Your task to perform on an android device: turn on translation in the chrome app Image 0: 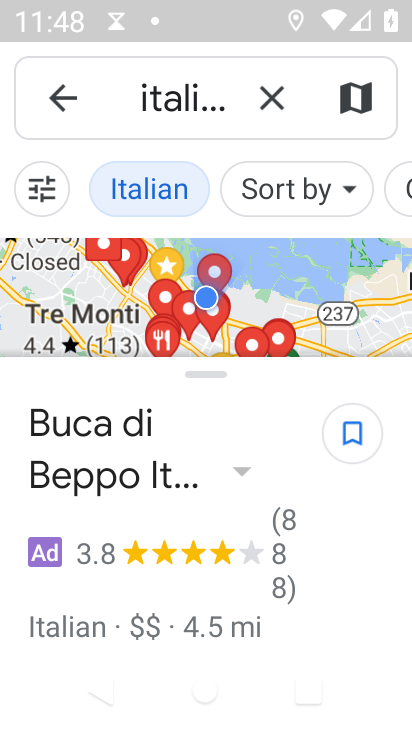
Step 0: press home button
Your task to perform on an android device: turn on translation in the chrome app Image 1: 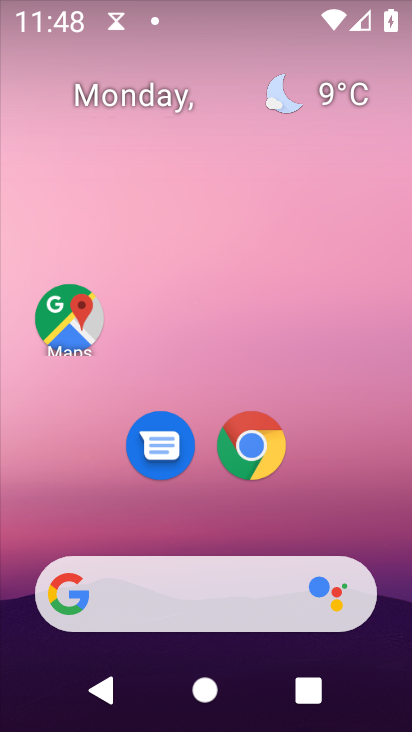
Step 1: drag from (229, 564) to (307, 1)
Your task to perform on an android device: turn on translation in the chrome app Image 2: 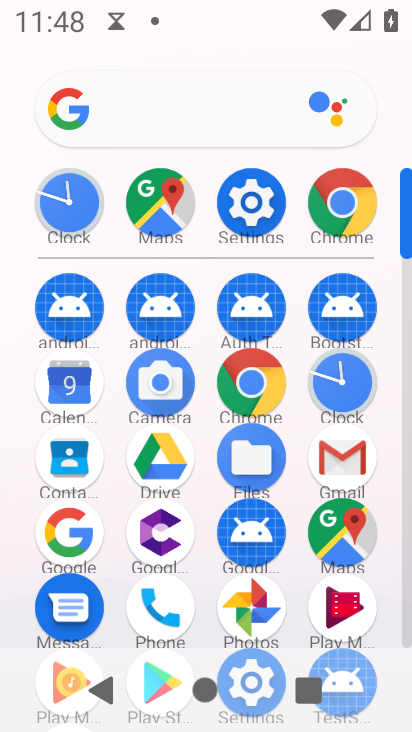
Step 2: click (258, 380)
Your task to perform on an android device: turn on translation in the chrome app Image 3: 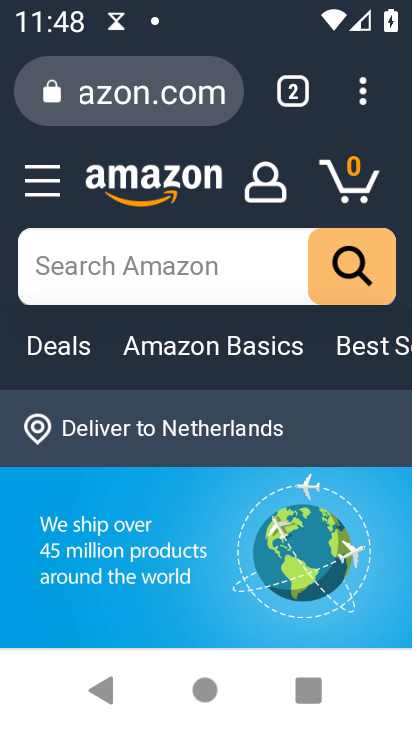
Step 3: drag from (363, 100) to (168, 487)
Your task to perform on an android device: turn on translation in the chrome app Image 4: 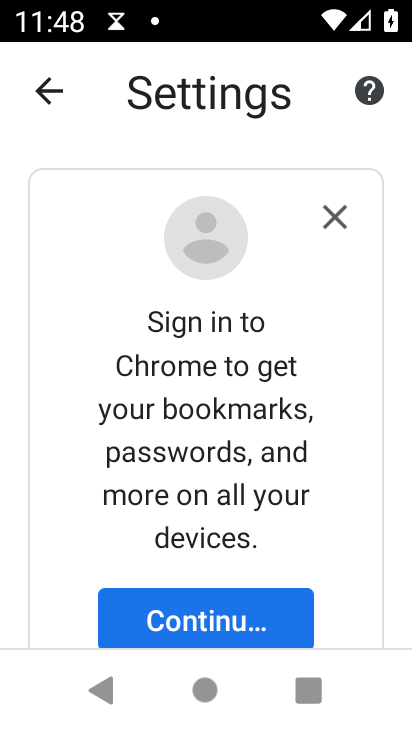
Step 4: drag from (321, 625) to (341, 129)
Your task to perform on an android device: turn on translation in the chrome app Image 5: 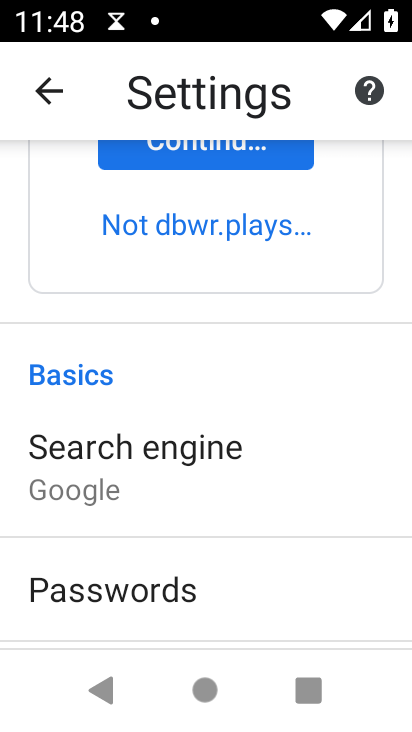
Step 5: drag from (331, 666) to (334, 193)
Your task to perform on an android device: turn on translation in the chrome app Image 6: 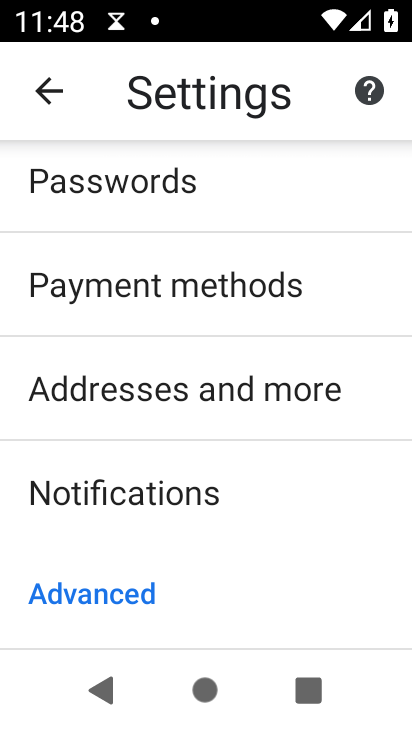
Step 6: drag from (327, 585) to (343, 197)
Your task to perform on an android device: turn on translation in the chrome app Image 7: 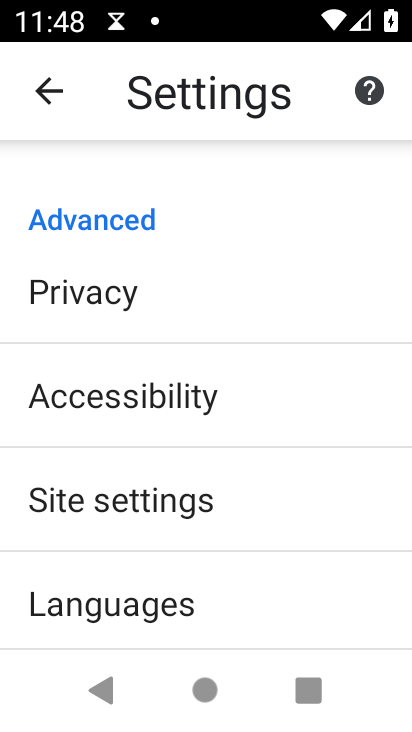
Step 7: drag from (231, 625) to (248, 359)
Your task to perform on an android device: turn on translation in the chrome app Image 8: 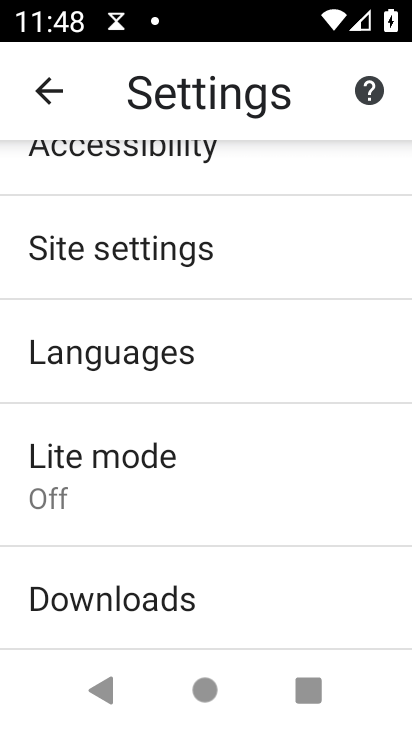
Step 8: click (230, 361)
Your task to perform on an android device: turn on translation in the chrome app Image 9: 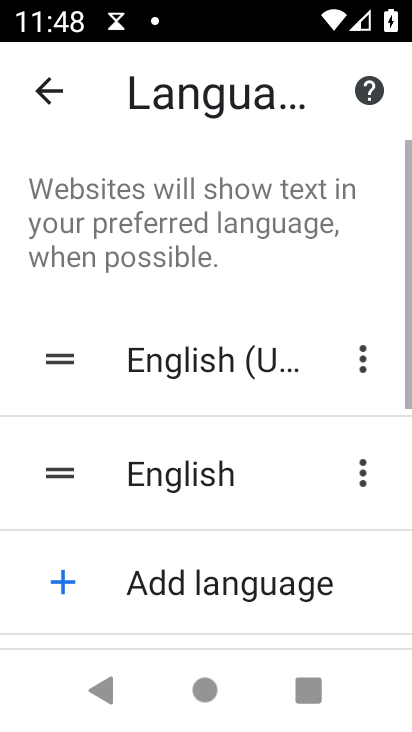
Step 9: task complete